Your task to perform on an android device: change text size in settings app Image 0: 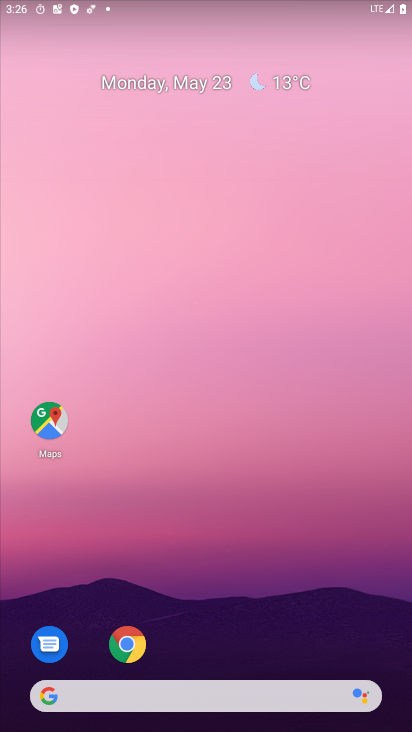
Step 0: drag from (226, 662) to (160, 9)
Your task to perform on an android device: change text size in settings app Image 1: 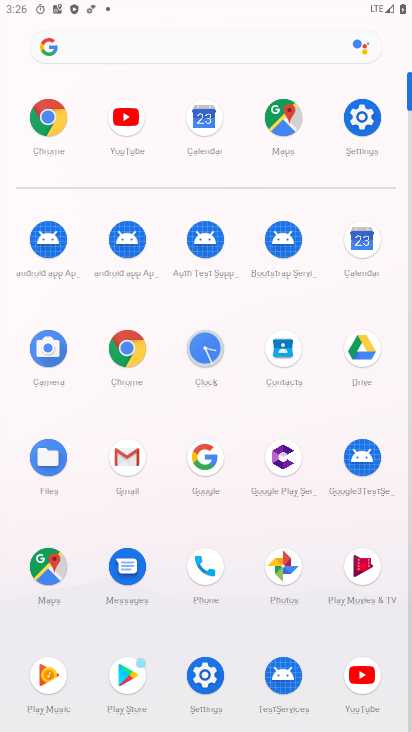
Step 1: click (211, 696)
Your task to perform on an android device: change text size in settings app Image 2: 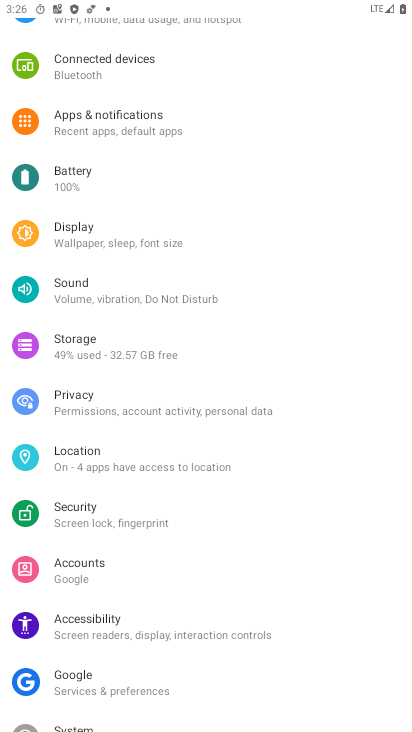
Step 2: click (74, 233)
Your task to perform on an android device: change text size in settings app Image 3: 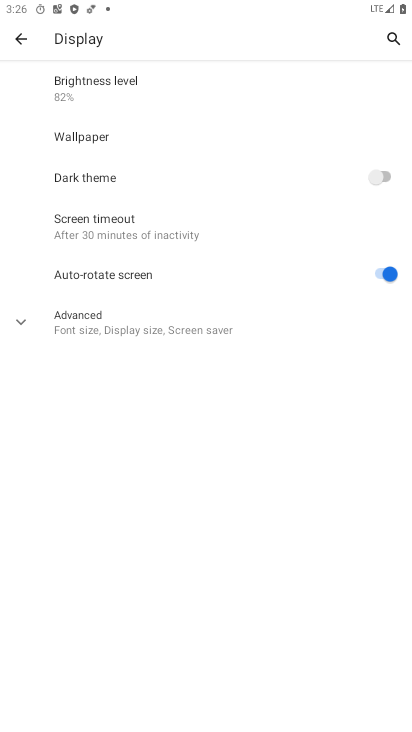
Step 3: click (102, 339)
Your task to perform on an android device: change text size in settings app Image 4: 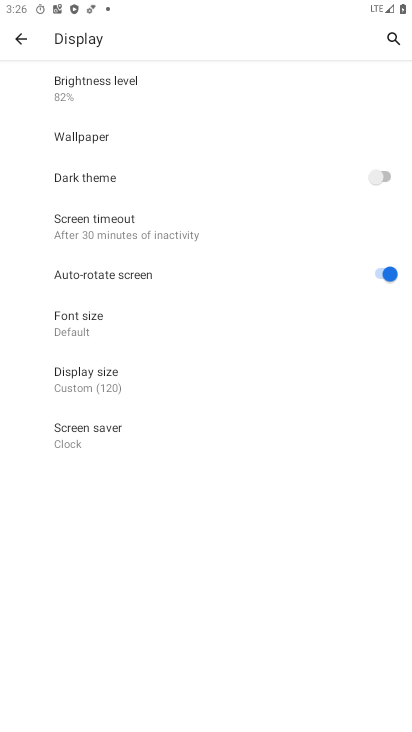
Step 4: click (103, 336)
Your task to perform on an android device: change text size in settings app Image 5: 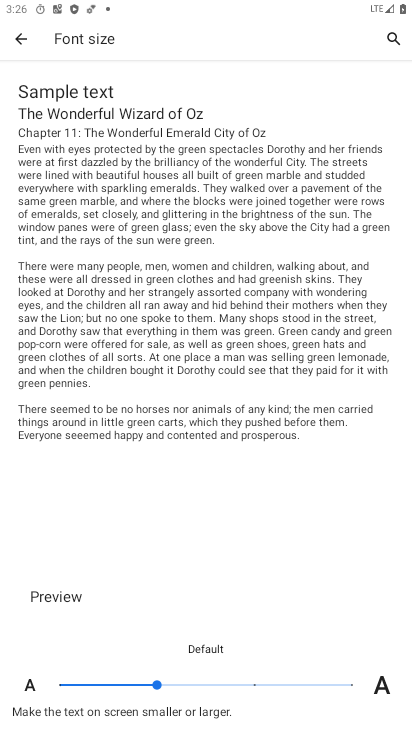
Step 5: click (254, 687)
Your task to perform on an android device: change text size in settings app Image 6: 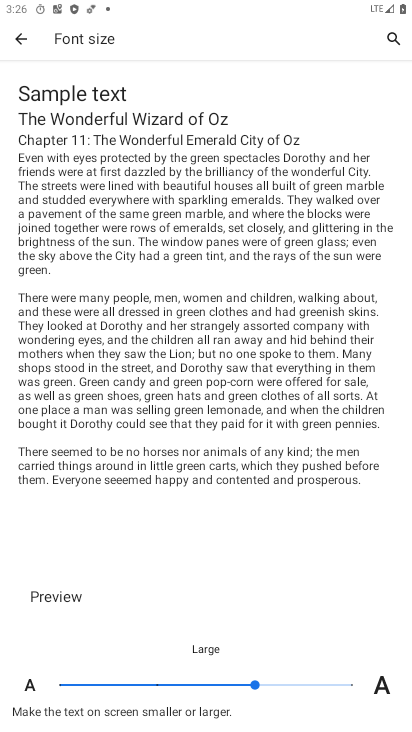
Step 6: task complete